Your task to perform on an android device: clear history in the chrome app Image 0: 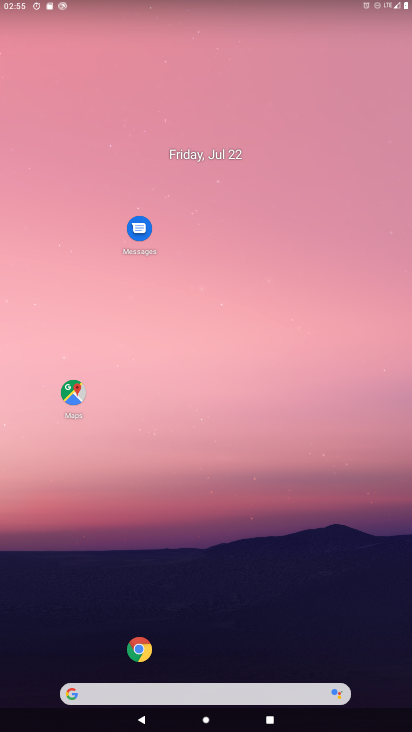
Step 0: click (134, 647)
Your task to perform on an android device: clear history in the chrome app Image 1: 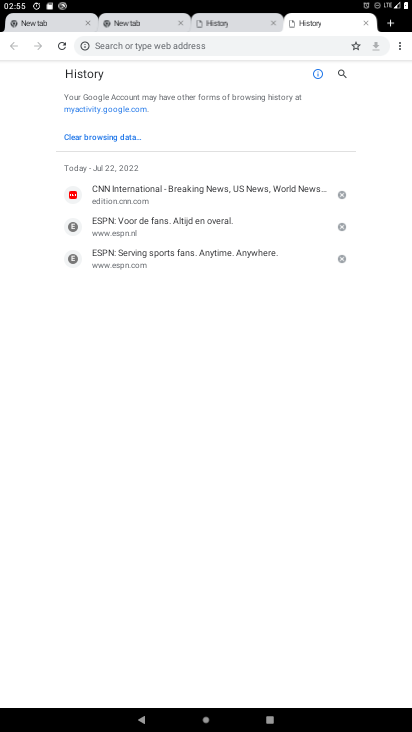
Step 1: click (99, 134)
Your task to perform on an android device: clear history in the chrome app Image 2: 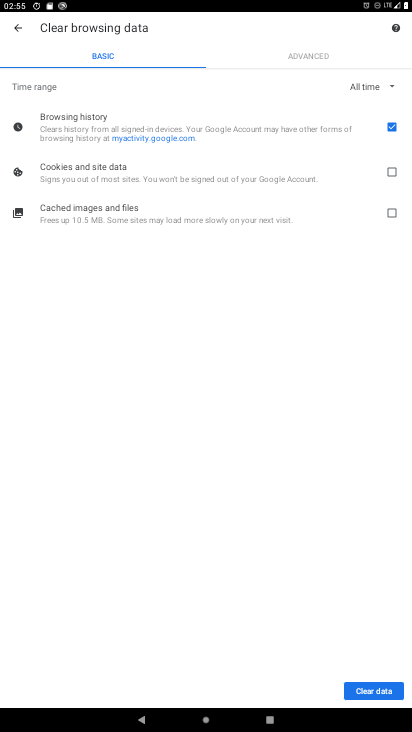
Step 2: click (362, 682)
Your task to perform on an android device: clear history in the chrome app Image 3: 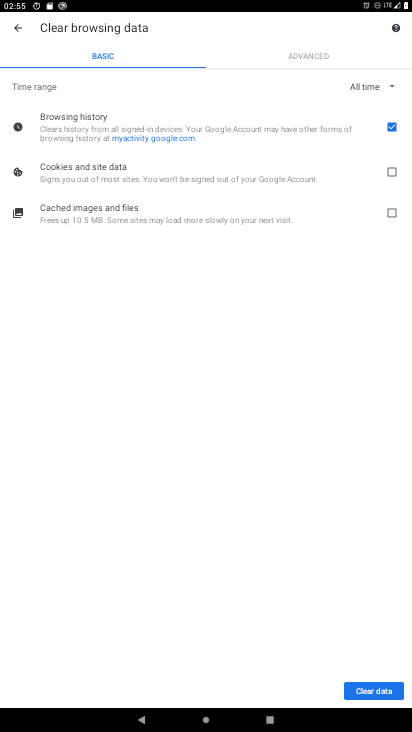
Step 3: click (366, 689)
Your task to perform on an android device: clear history in the chrome app Image 4: 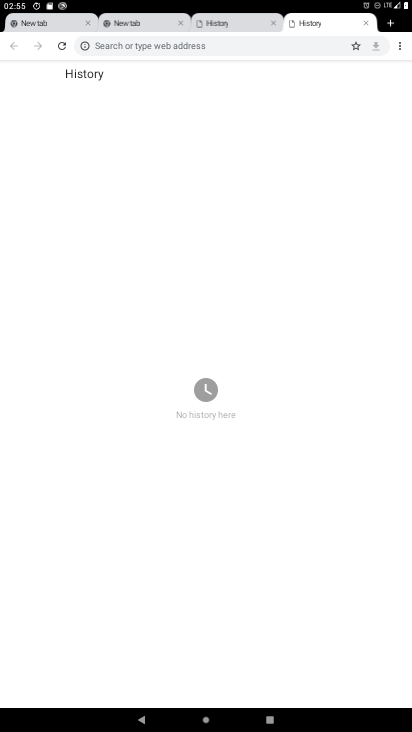
Step 4: task complete